Your task to perform on an android device: clear all cookies in the chrome app Image 0: 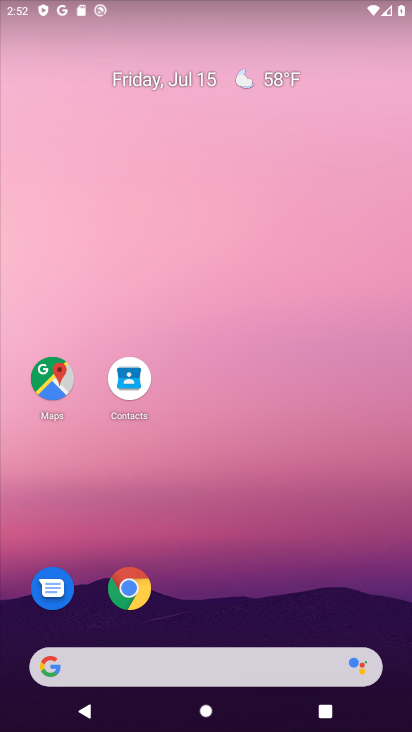
Step 0: click (138, 609)
Your task to perform on an android device: clear all cookies in the chrome app Image 1: 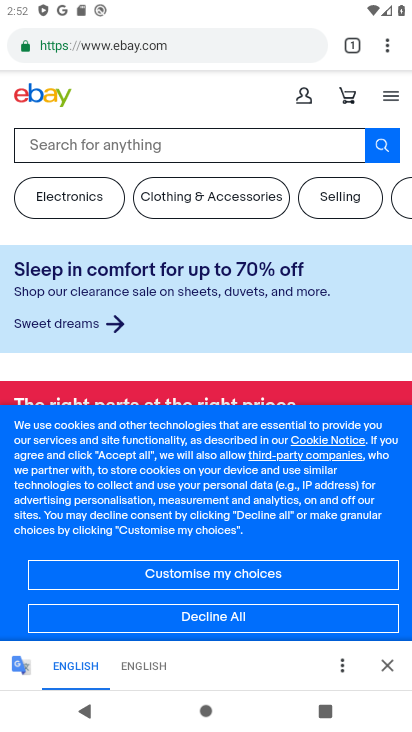
Step 1: task complete